Your task to perform on an android device: install app "Messages" Image 0: 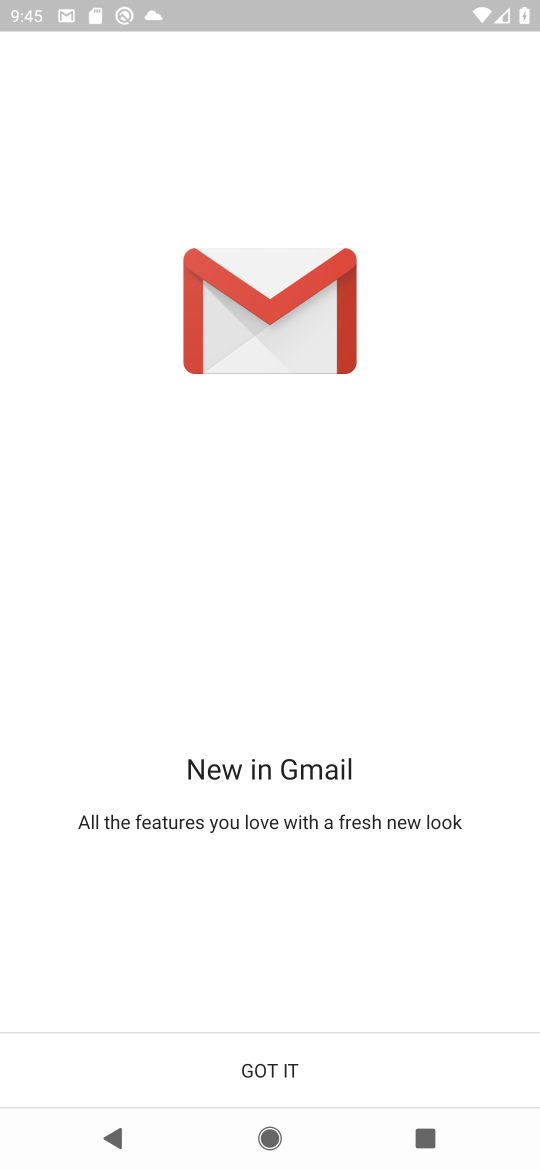
Step 0: press home button
Your task to perform on an android device: install app "Messages" Image 1: 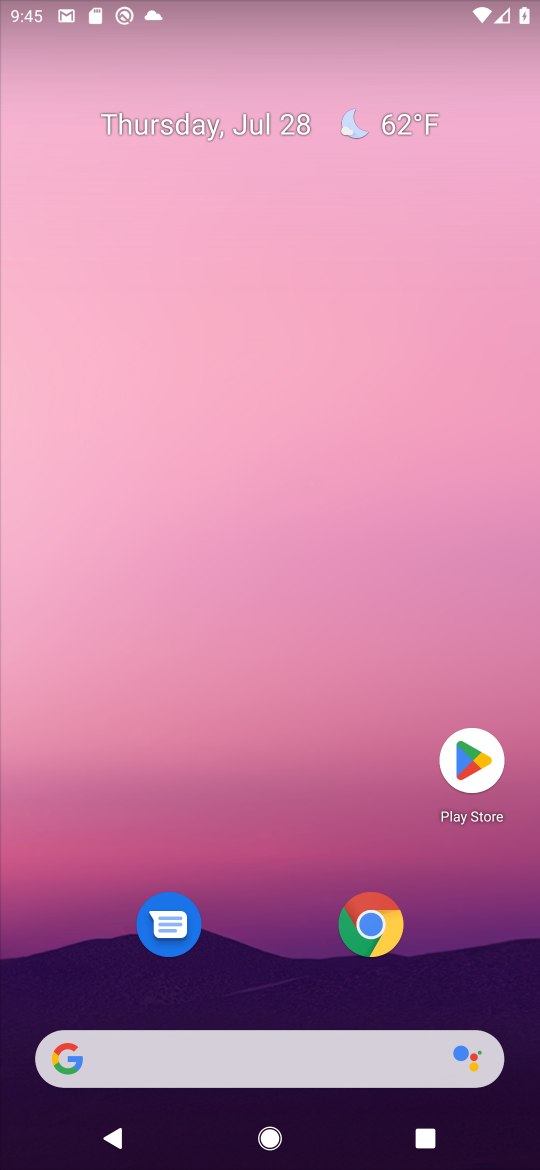
Step 1: click (467, 748)
Your task to perform on an android device: install app "Messages" Image 2: 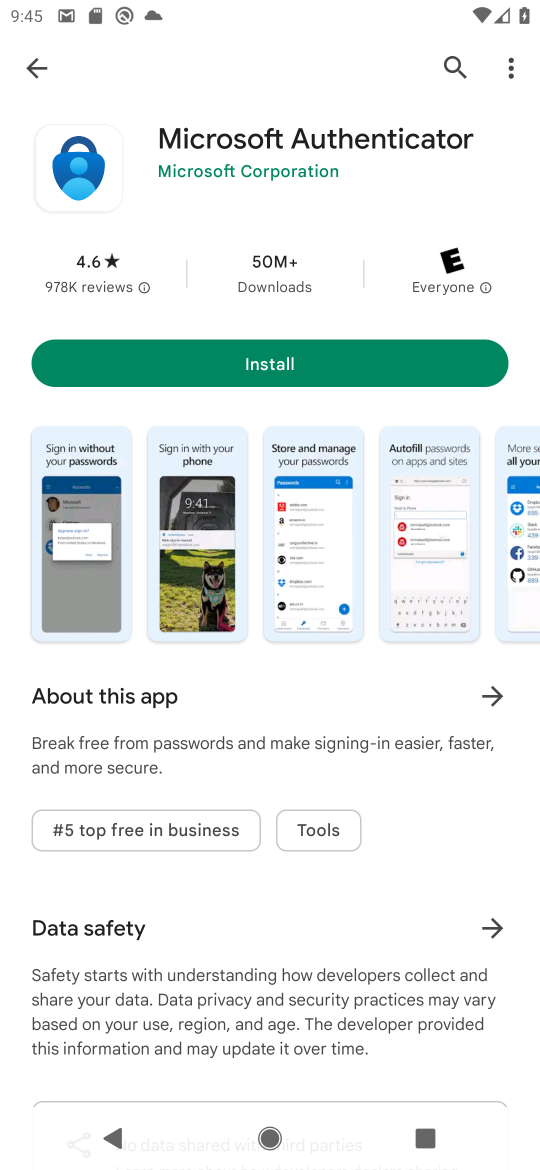
Step 2: click (451, 60)
Your task to perform on an android device: install app "Messages" Image 3: 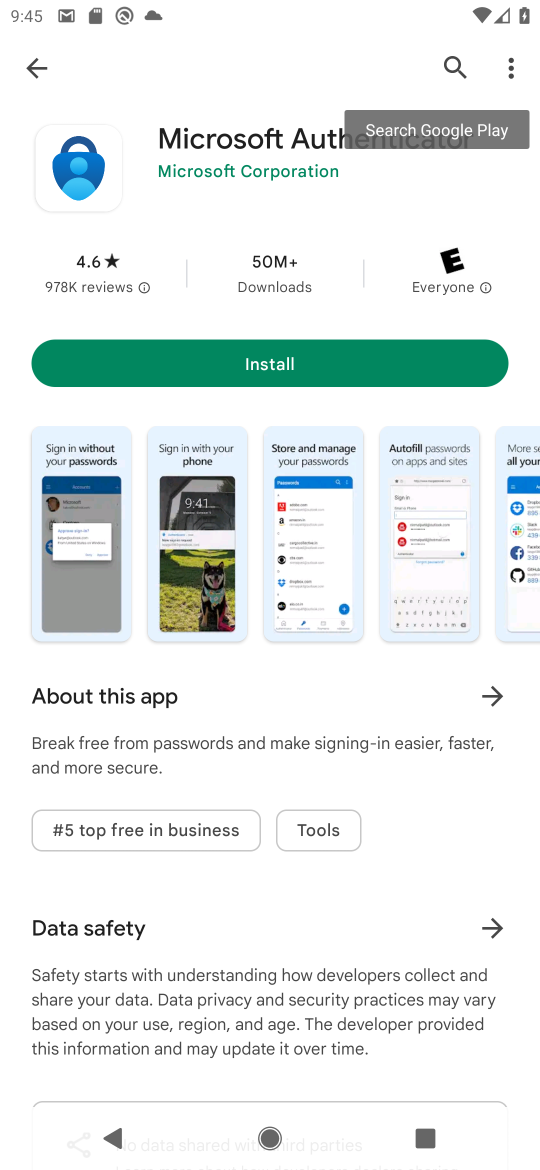
Step 3: click (446, 67)
Your task to perform on an android device: install app "Messages" Image 4: 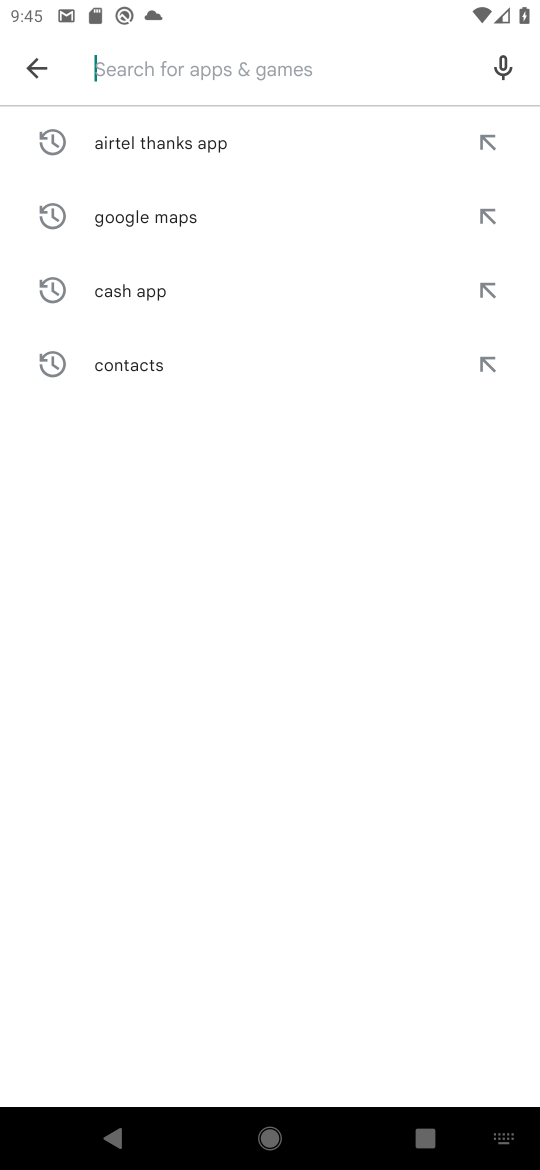
Step 4: type "Messages"
Your task to perform on an android device: install app "Messages" Image 5: 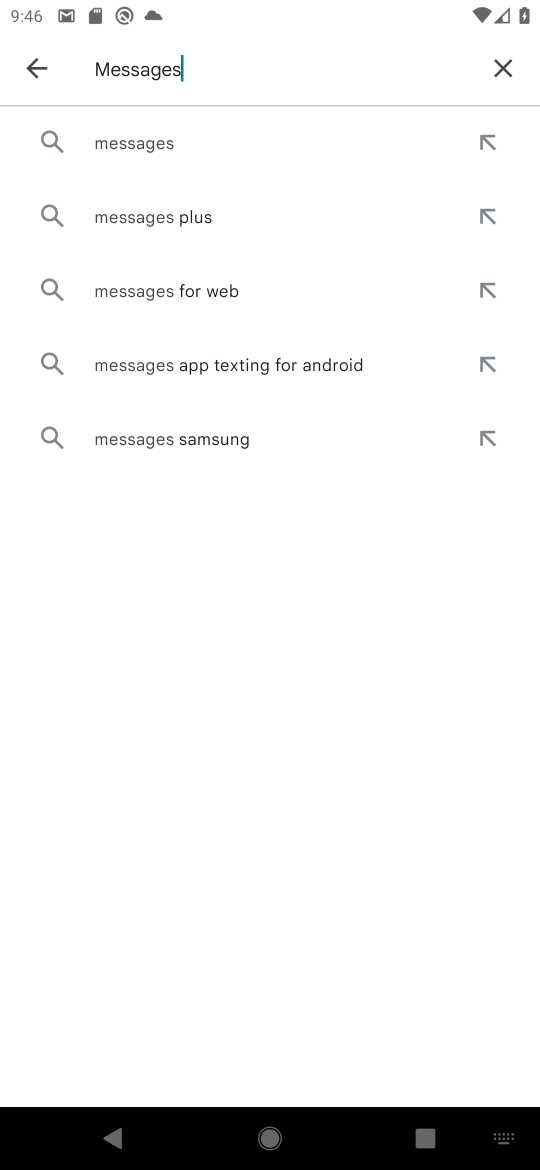
Step 5: click (135, 146)
Your task to perform on an android device: install app "Messages" Image 6: 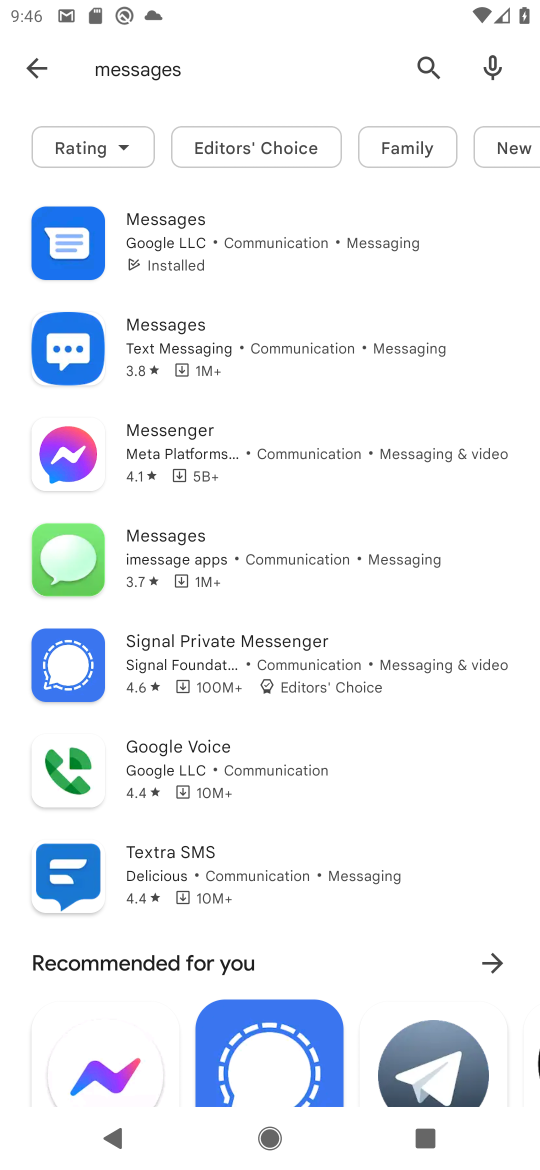
Step 6: click (138, 228)
Your task to perform on an android device: install app "Messages" Image 7: 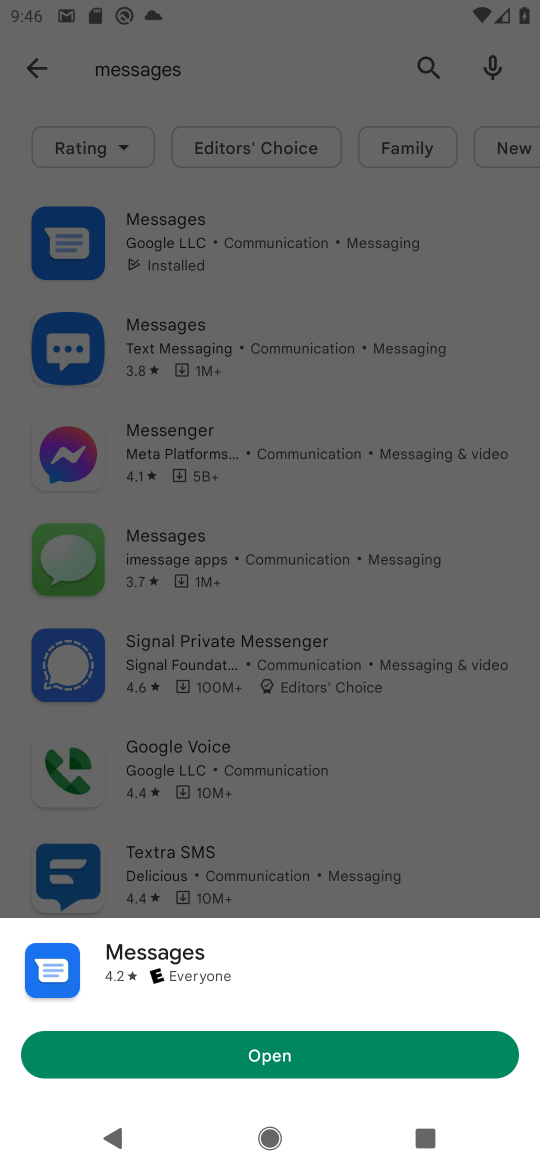
Step 7: task complete